Your task to perform on an android device: toggle translation in the chrome app Image 0: 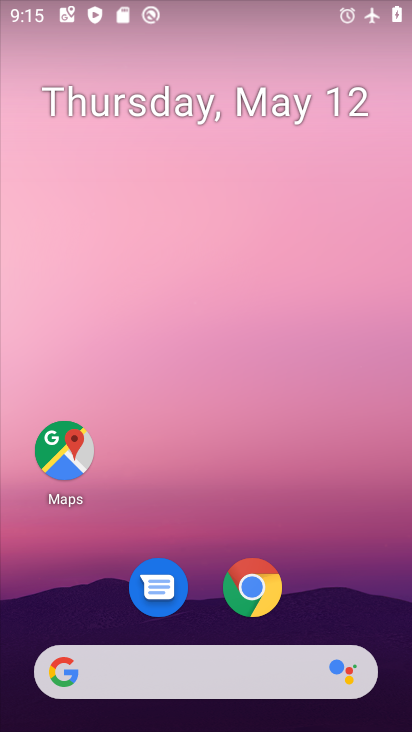
Step 0: drag from (310, 622) to (329, 216)
Your task to perform on an android device: toggle translation in the chrome app Image 1: 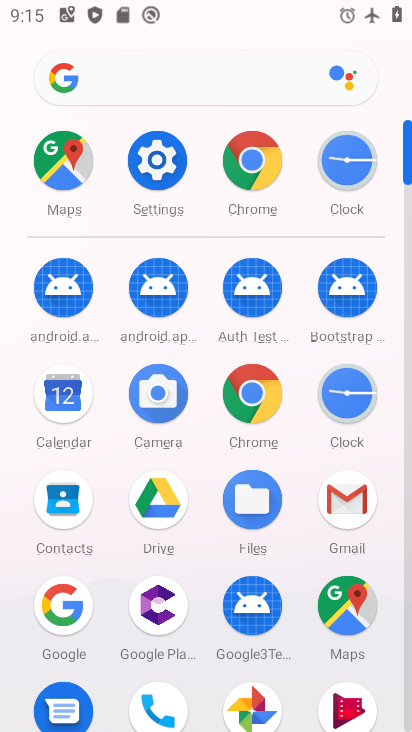
Step 1: click (240, 144)
Your task to perform on an android device: toggle translation in the chrome app Image 2: 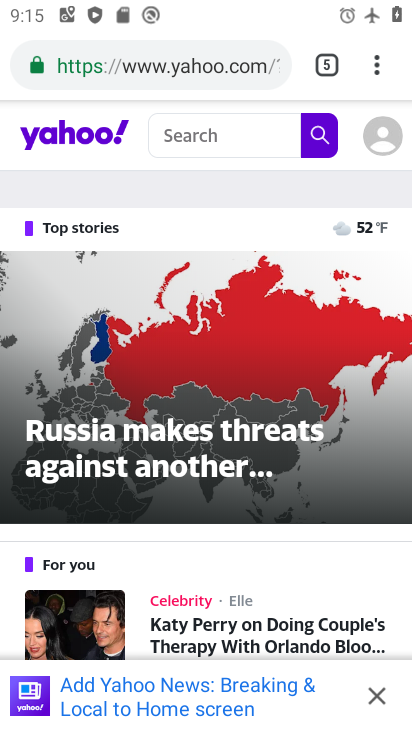
Step 2: click (366, 60)
Your task to perform on an android device: toggle translation in the chrome app Image 3: 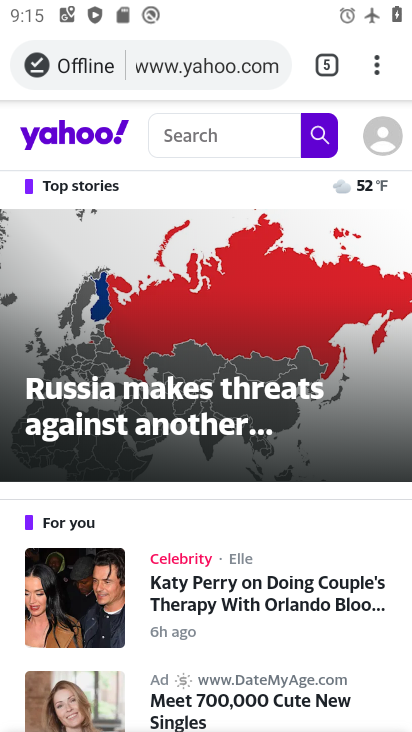
Step 3: click (357, 55)
Your task to perform on an android device: toggle translation in the chrome app Image 4: 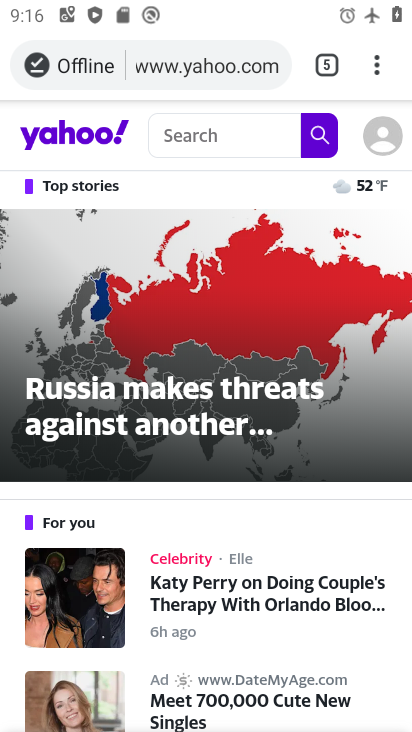
Step 4: click (402, 59)
Your task to perform on an android device: toggle translation in the chrome app Image 5: 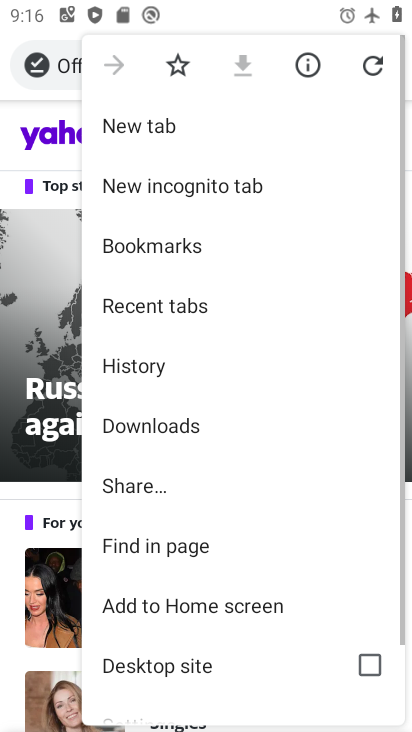
Step 5: drag from (192, 604) to (267, 218)
Your task to perform on an android device: toggle translation in the chrome app Image 6: 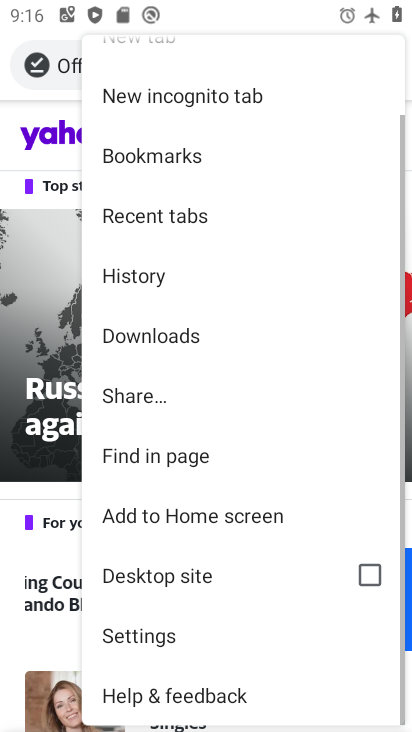
Step 6: click (167, 635)
Your task to perform on an android device: toggle translation in the chrome app Image 7: 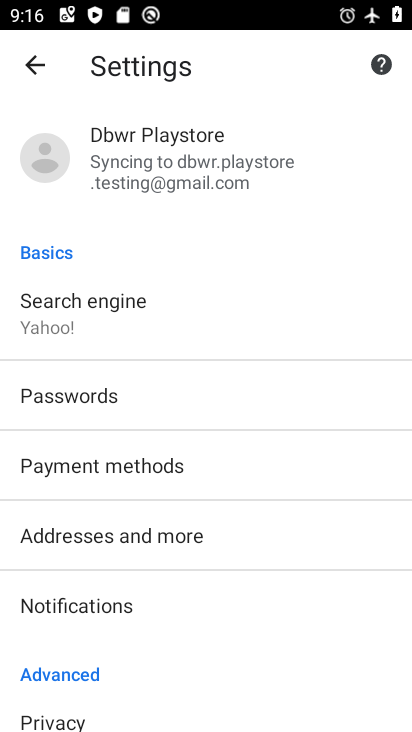
Step 7: drag from (223, 602) to (298, 174)
Your task to perform on an android device: toggle translation in the chrome app Image 8: 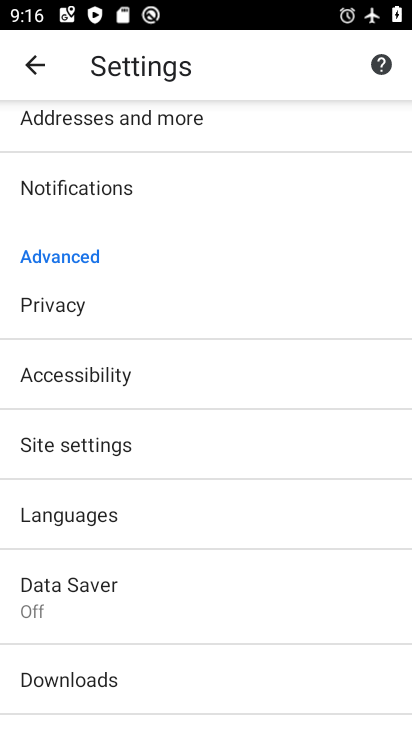
Step 8: click (108, 443)
Your task to perform on an android device: toggle translation in the chrome app Image 9: 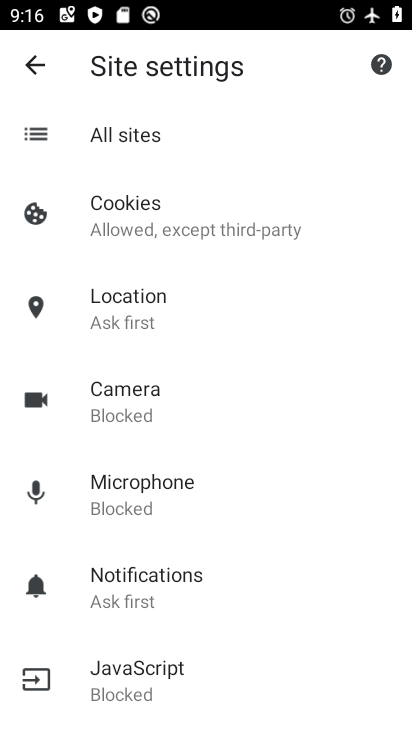
Step 9: drag from (216, 612) to (247, 188)
Your task to perform on an android device: toggle translation in the chrome app Image 10: 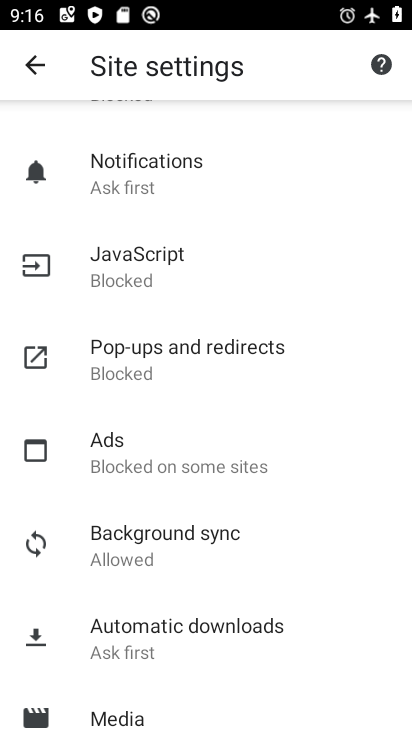
Step 10: click (23, 57)
Your task to perform on an android device: toggle translation in the chrome app Image 11: 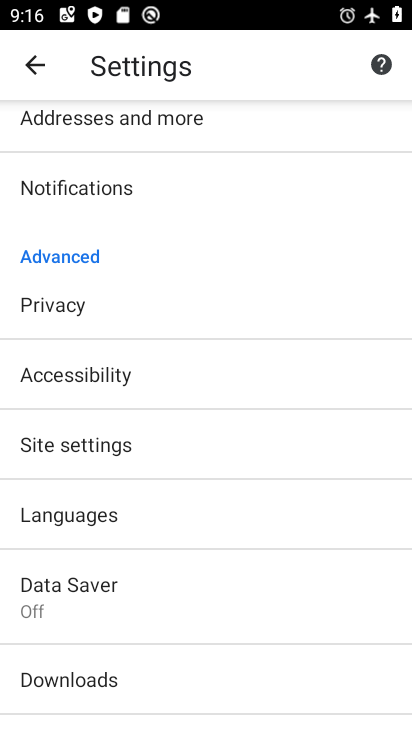
Step 11: click (117, 505)
Your task to perform on an android device: toggle translation in the chrome app Image 12: 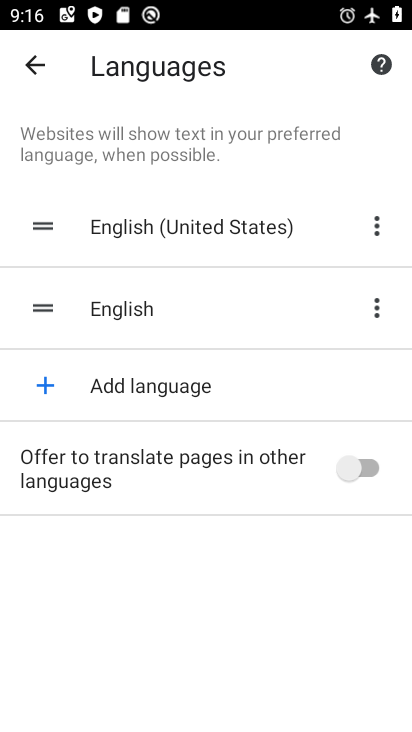
Step 12: click (364, 454)
Your task to perform on an android device: toggle translation in the chrome app Image 13: 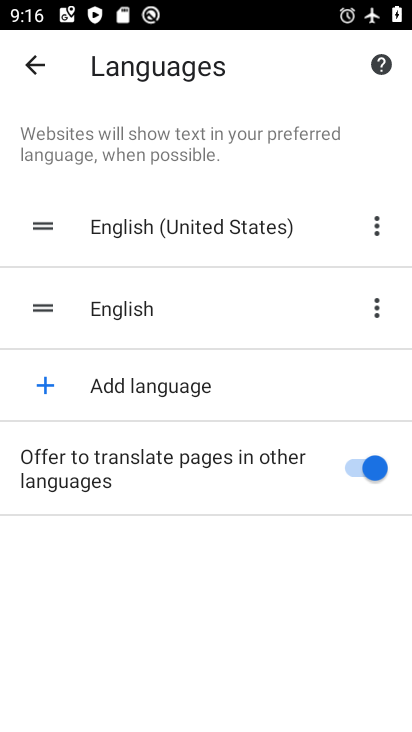
Step 13: task complete